Your task to perform on an android device: open a new tab in the chrome app Image 0: 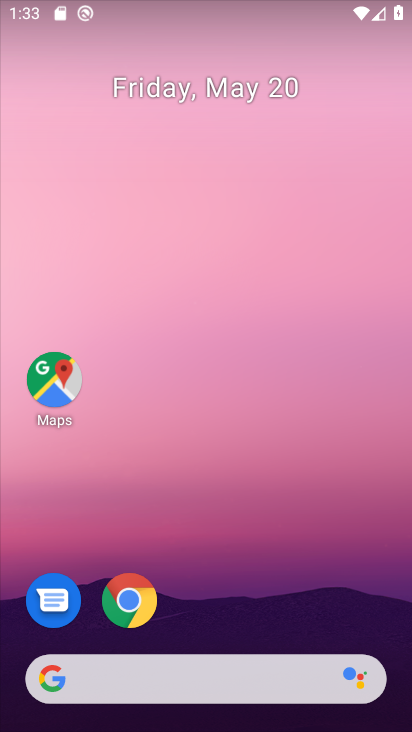
Step 0: click (141, 592)
Your task to perform on an android device: open a new tab in the chrome app Image 1: 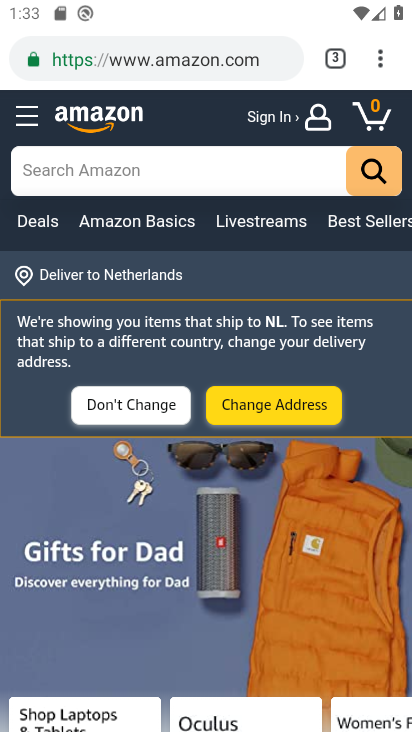
Step 1: click (389, 61)
Your task to perform on an android device: open a new tab in the chrome app Image 2: 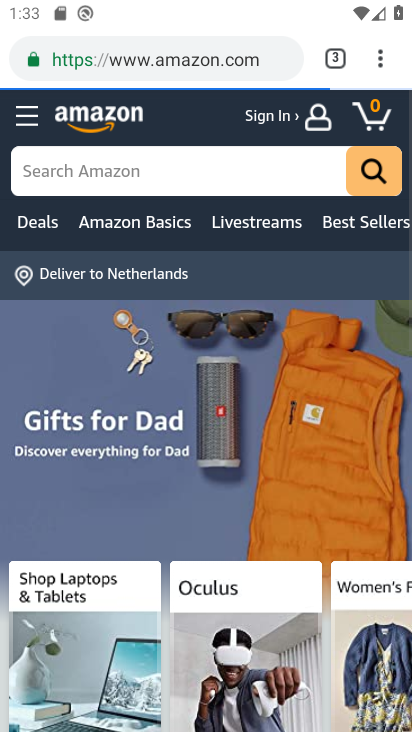
Step 2: click (384, 62)
Your task to perform on an android device: open a new tab in the chrome app Image 3: 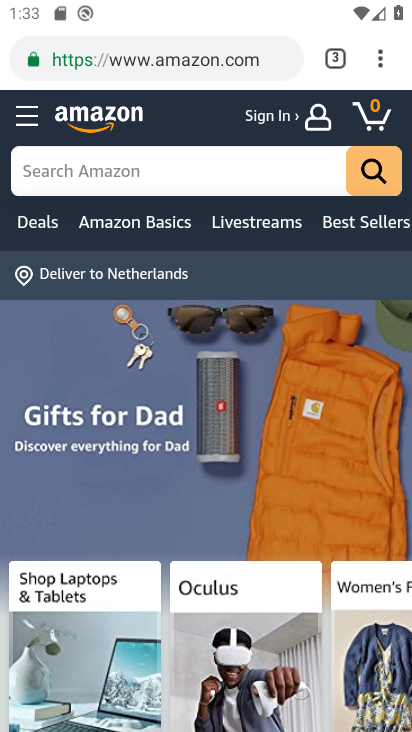
Step 3: click (377, 54)
Your task to perform on an android device: open a new tab in the chrome app Image 4: 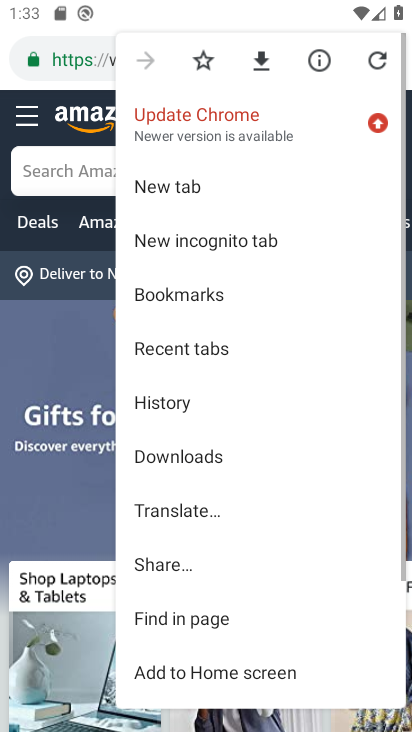
Step 4: click (159, 187)
Your task to perform on an android device: open a new tab in the chrome app Image 5: 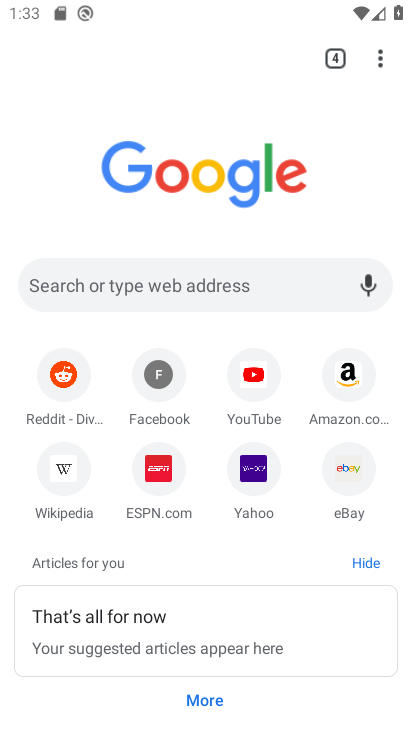
Step 5: task complete